Your task to perform on an android device: open chrome privacy settings Image 0: 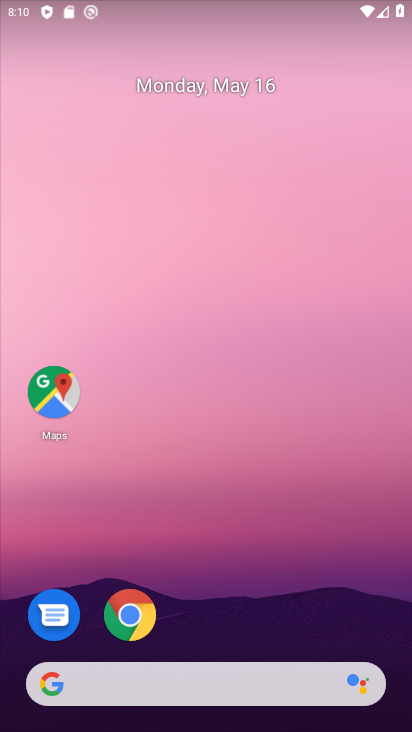
Step 0: drag from (268, 643) to (310, 7)
Your task to perform on an android device: open chrome privacy settings Image 1: 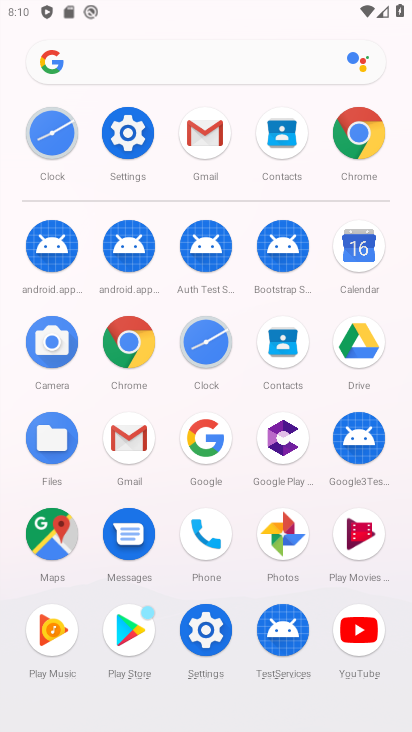
Step 1: drag from (349, 204) to (336, 142)
Your task to perform on an android device: open chrome privacy settings Image 2: 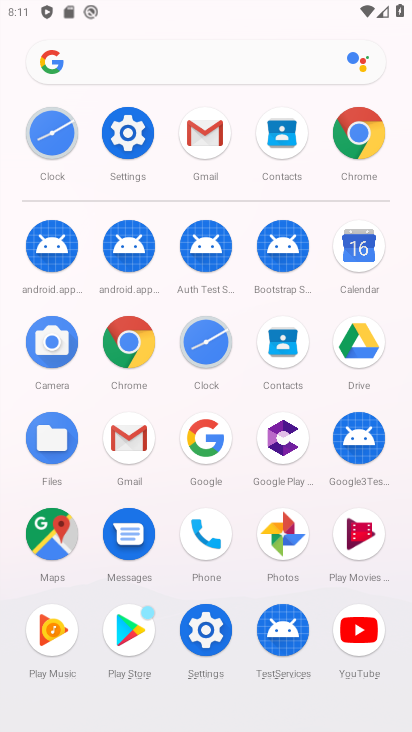
Step 2: click (127, 351)
Your task to perform on an android device: open chrome privacy settings Image 3: 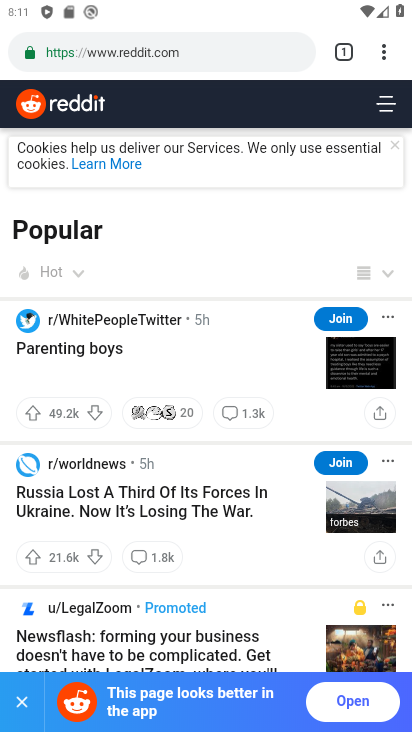
Step 3: click (389, 57)
Your task to perform on an android device: open chrome privacy settings Image 4: 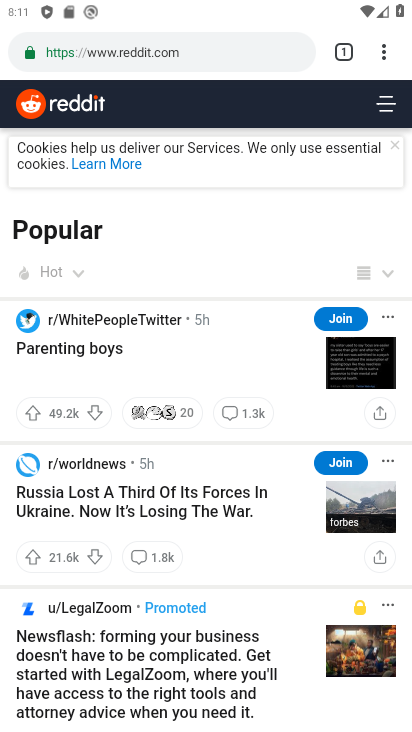
Step 4: click (390, 61)
Your task to perform on an android device: open chrome privacy settings Image 5: 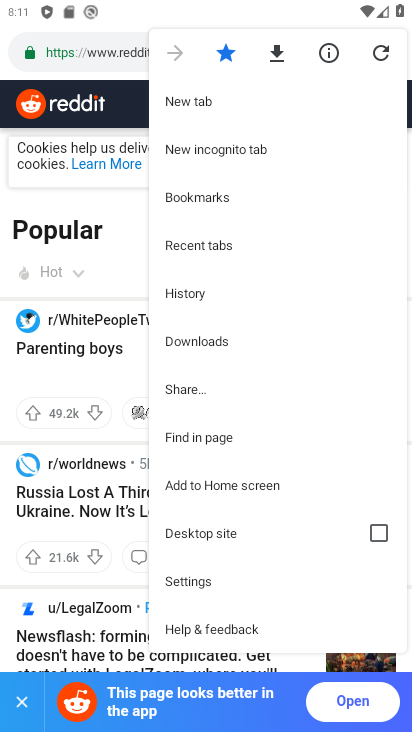
Step 5: click (200, 575)
Your task to perform on an android device: open chrome privacy settings Image 6: 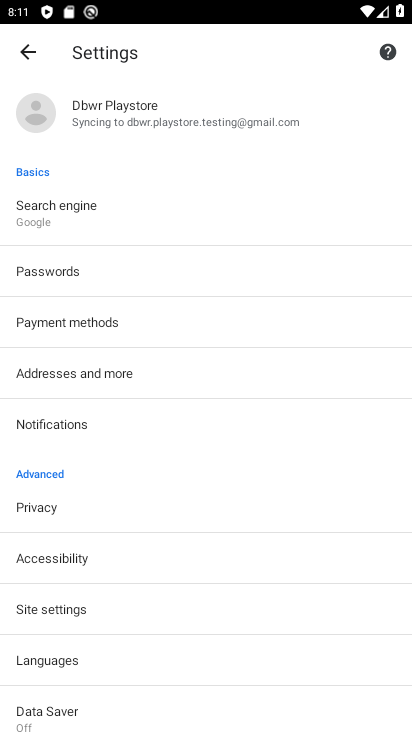
Step 6: drag from (131, 599) to (131, 346)
Your task to perform on an android device: open chrome privacy settings Image 7: 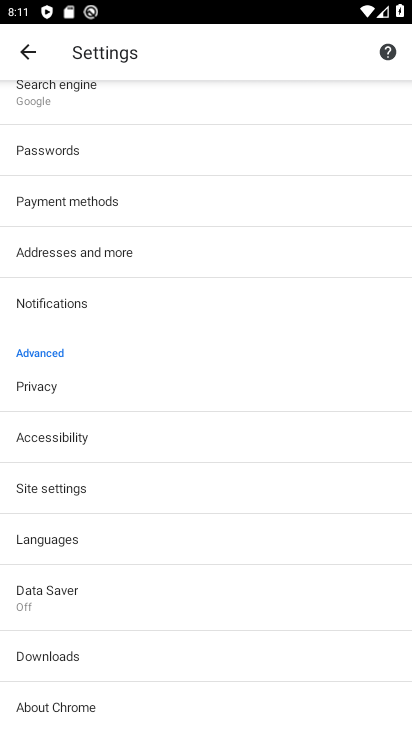
Step 7: click (50, 390)
Your task to perform on an android device: open chrome privacy settings Image 8: 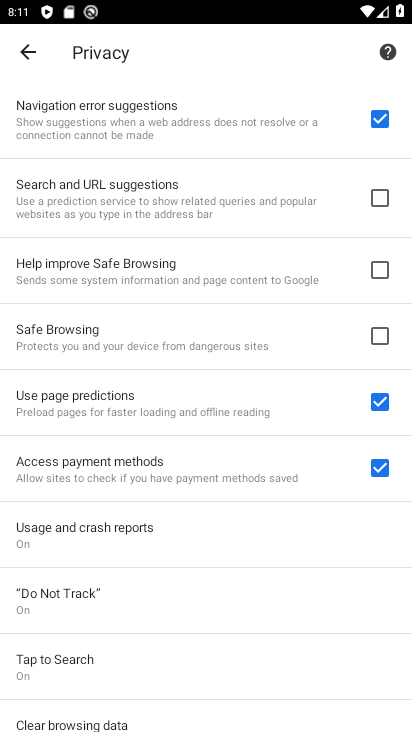
Step 8: task complete